Your task to perform on an android device: add a contact in the contacts app Image 0: 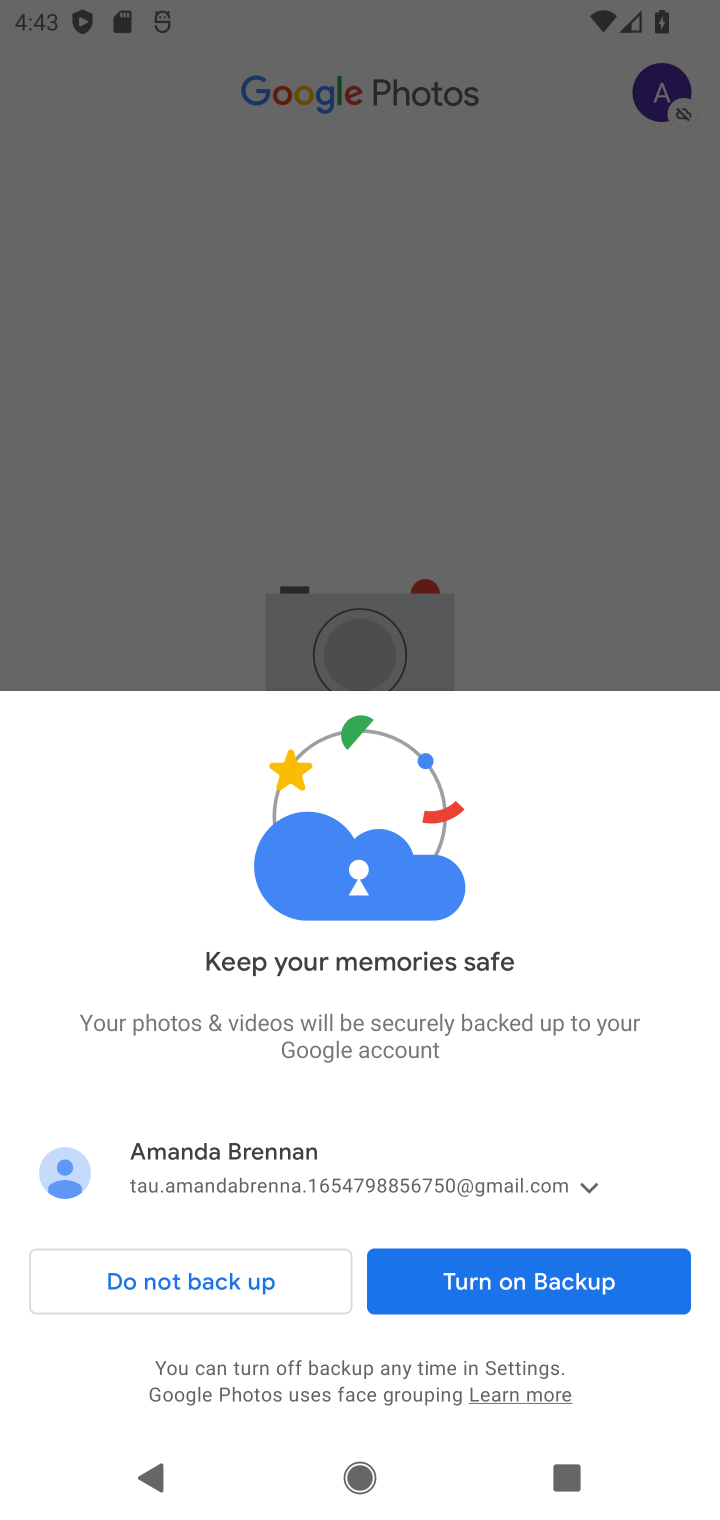
Step 0: press home button
Your task to perform on an android device: add a contact in the contacts app Image 1: 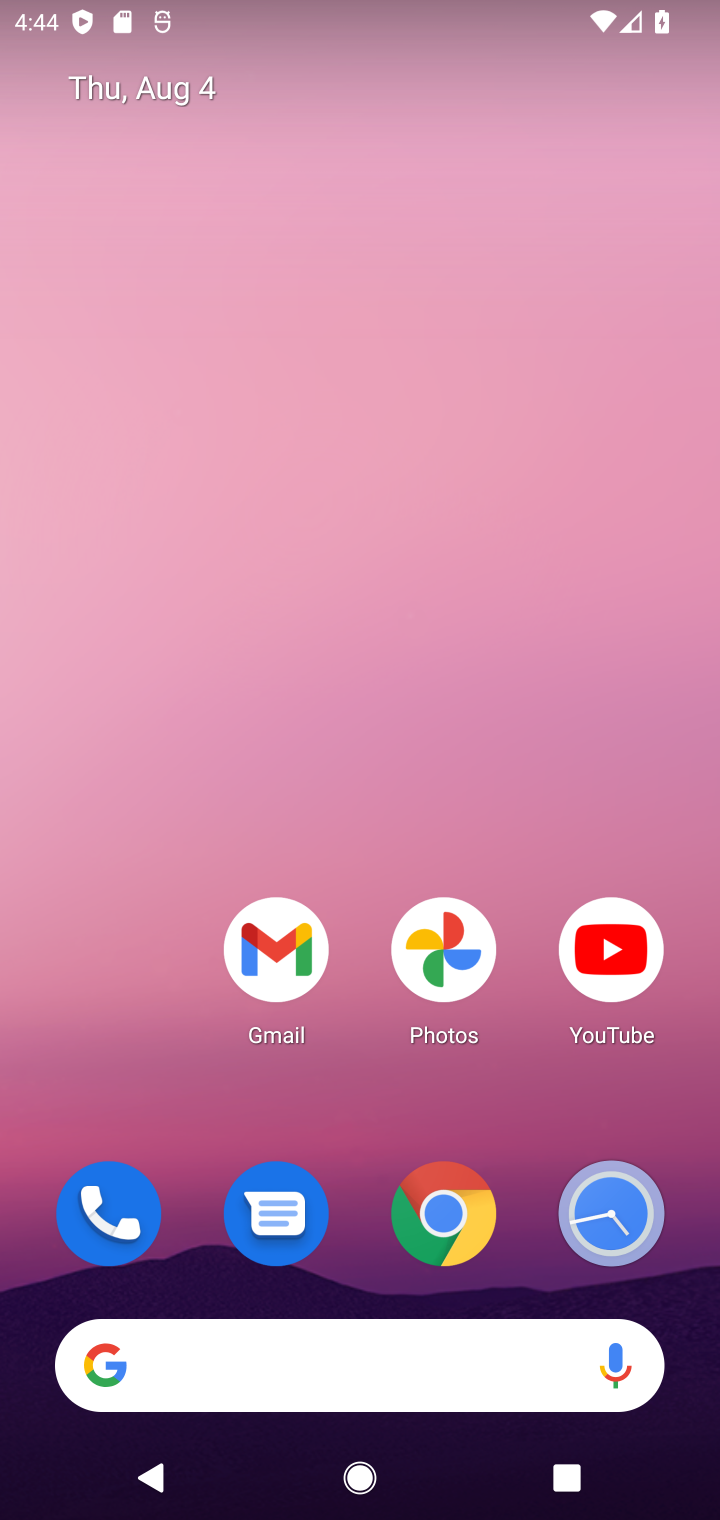
Step 1: drag from (310, 1371) to (378, 408)
Your task to perform on an android device: add a contact in the contacts app Image 2: 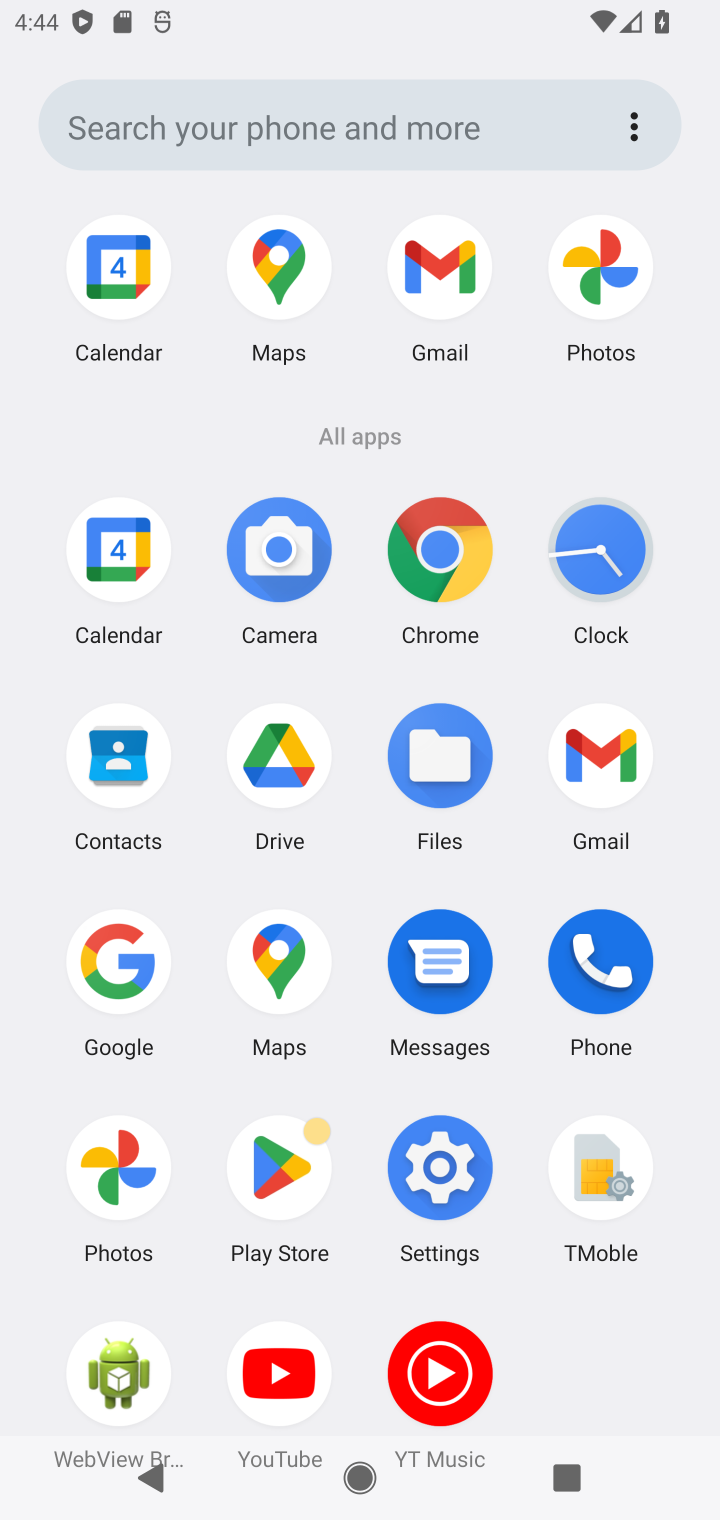
Step 2: click (118, 760)
Your task to perform on an android device: add a contact in the contacts app Image 3: 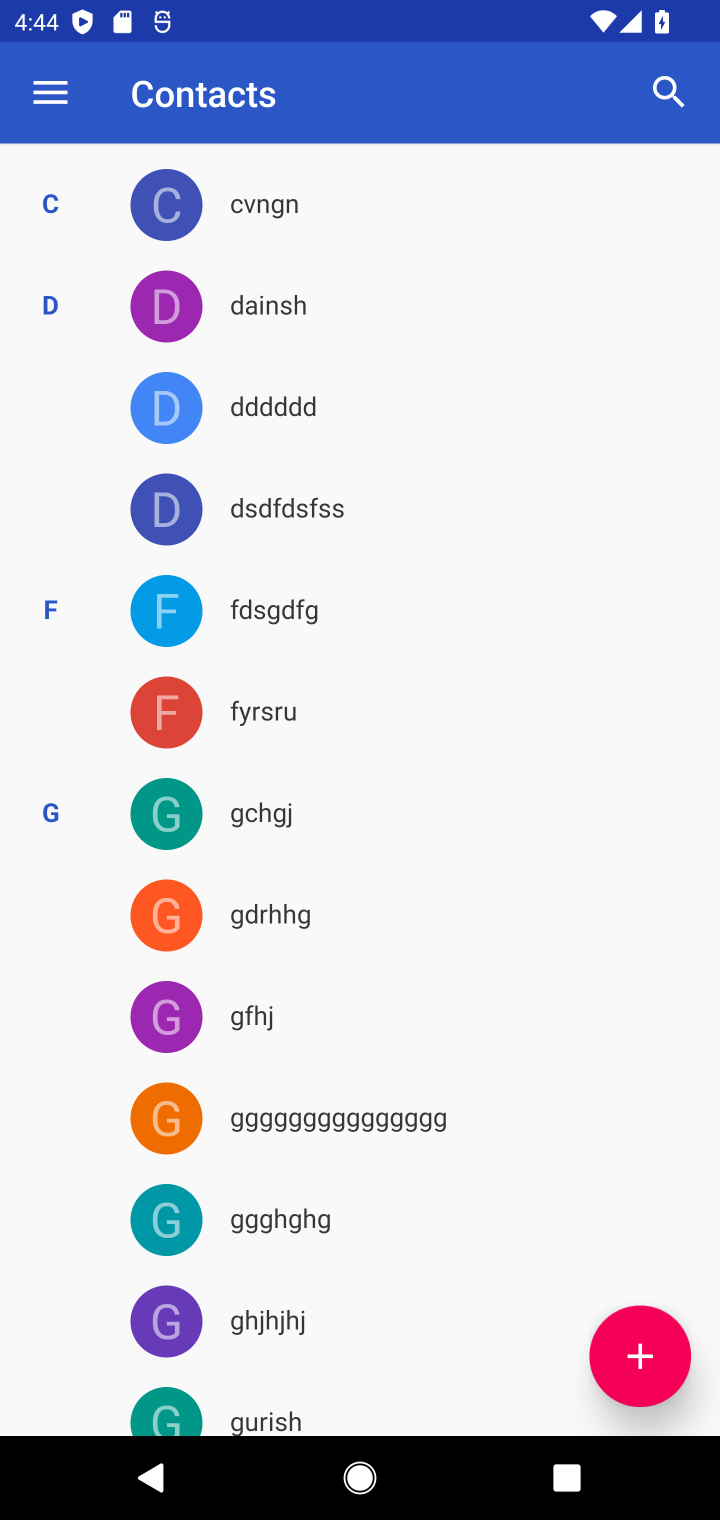
Step 3: click (641, 1355)
Your task to perform on an android device: add a contact in the contacts app Image 4: 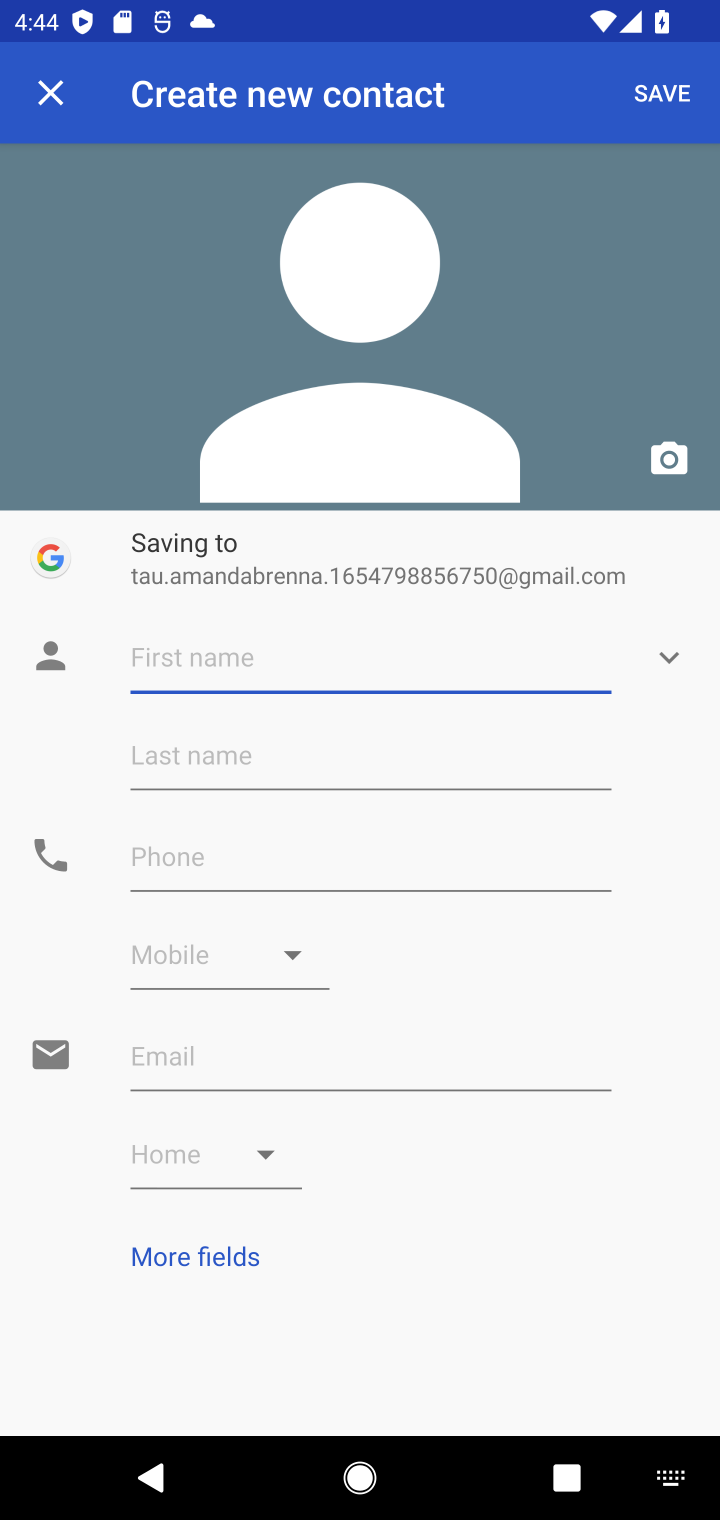
Step 4: type "Juspinder"
Your task to perform on an android device: add a contact in the contacts app Image 5: 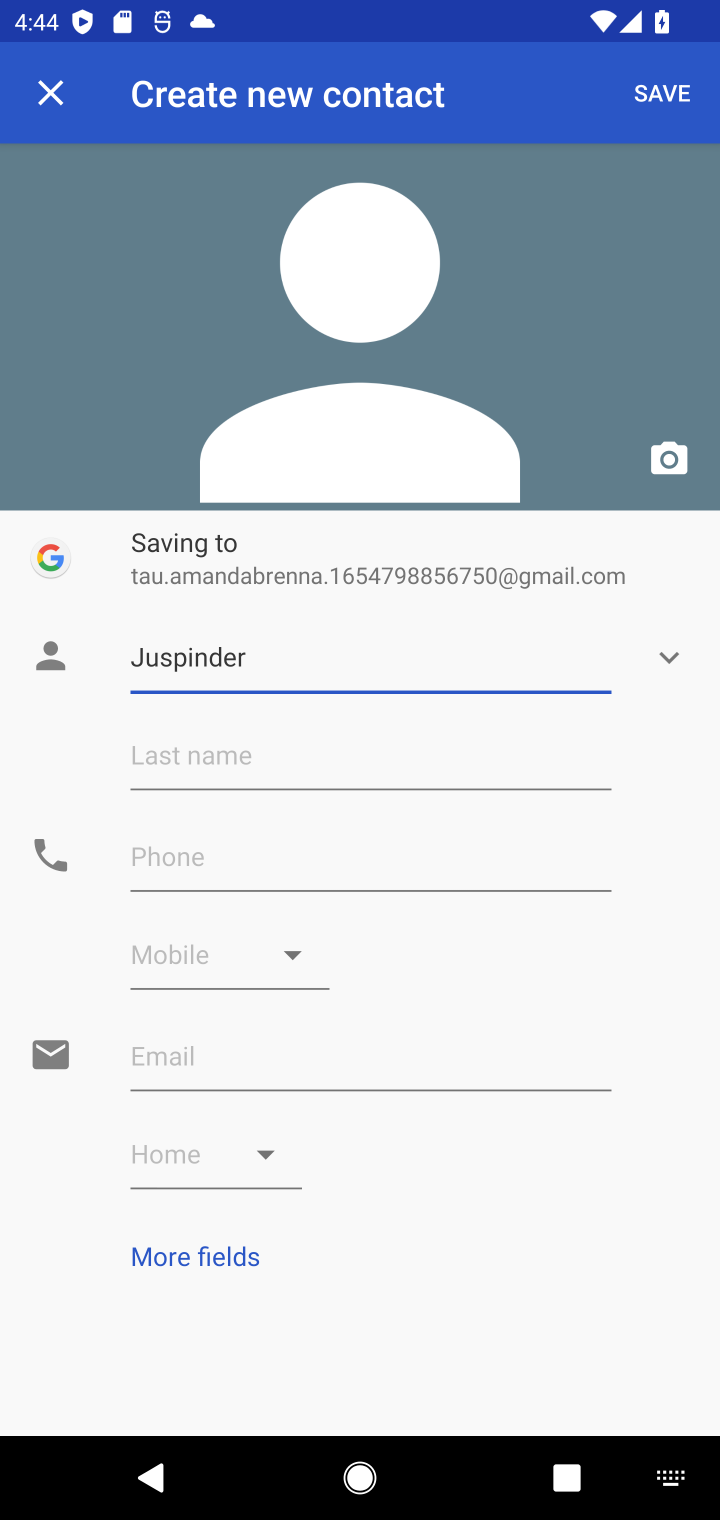
Step 5: click (476, 787)
Your task to perform on an android device: add a contact in the contacts app Image 6: 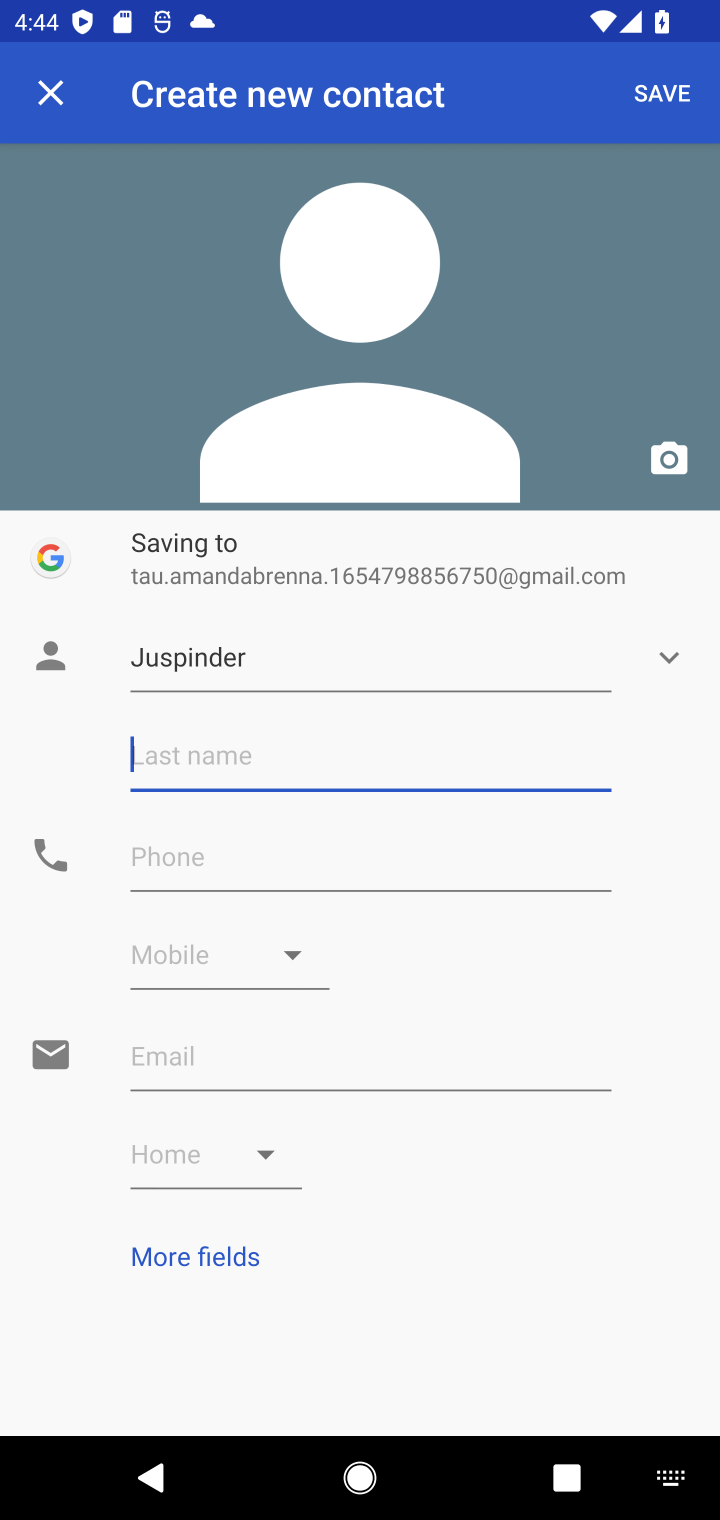
Step 6: type "Narula"
Your task to perform on an android device: add a contact in the contacts app Image 7: 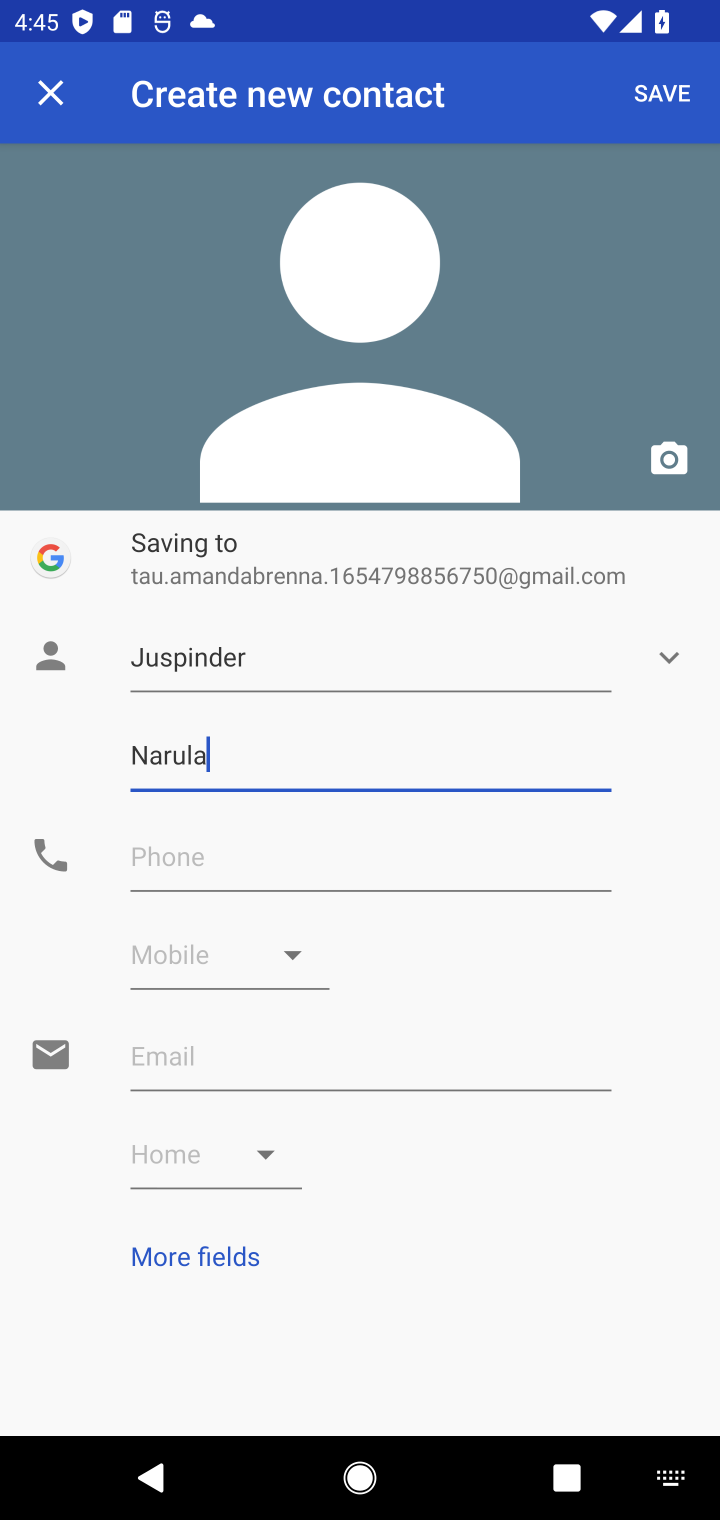
Step 7: click (308, 878)
Your task to perform on an android device: add a contact in the contacts app Image 8: 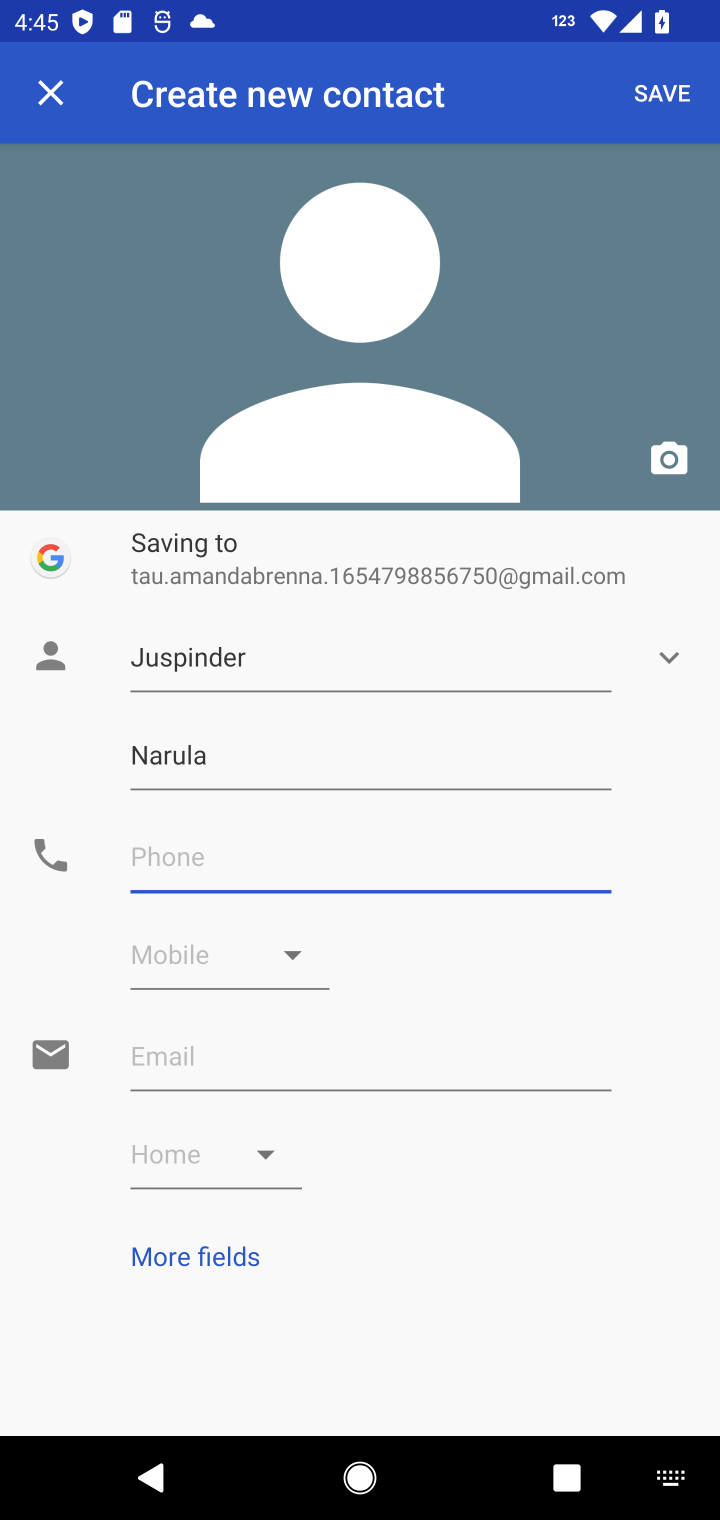
Step 8: type "0987654321"
Your task to perform on an android device: add a contact in the contacts app Image 9: 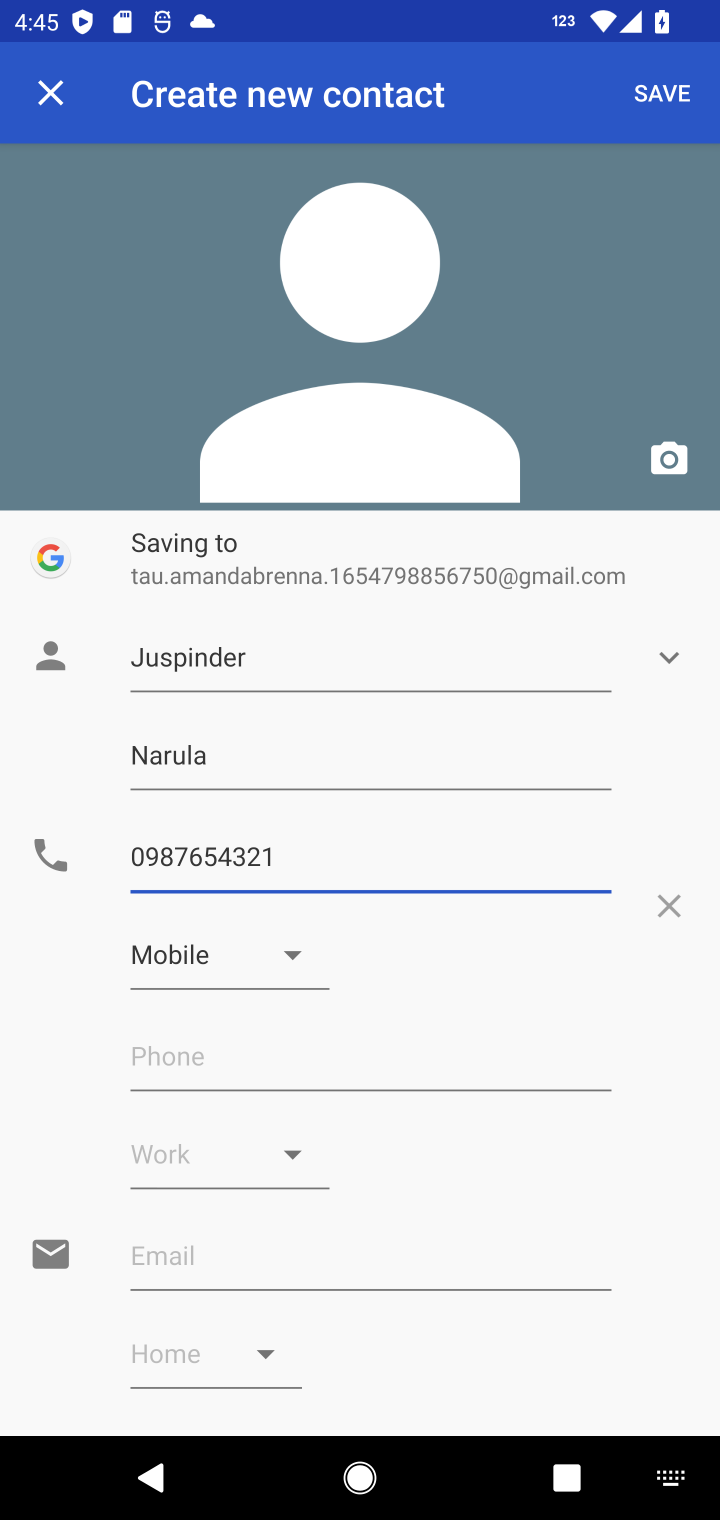
Step 9: click (677, 83)
Your task to perform on an android device: add a contact in the contacts app Image 10: 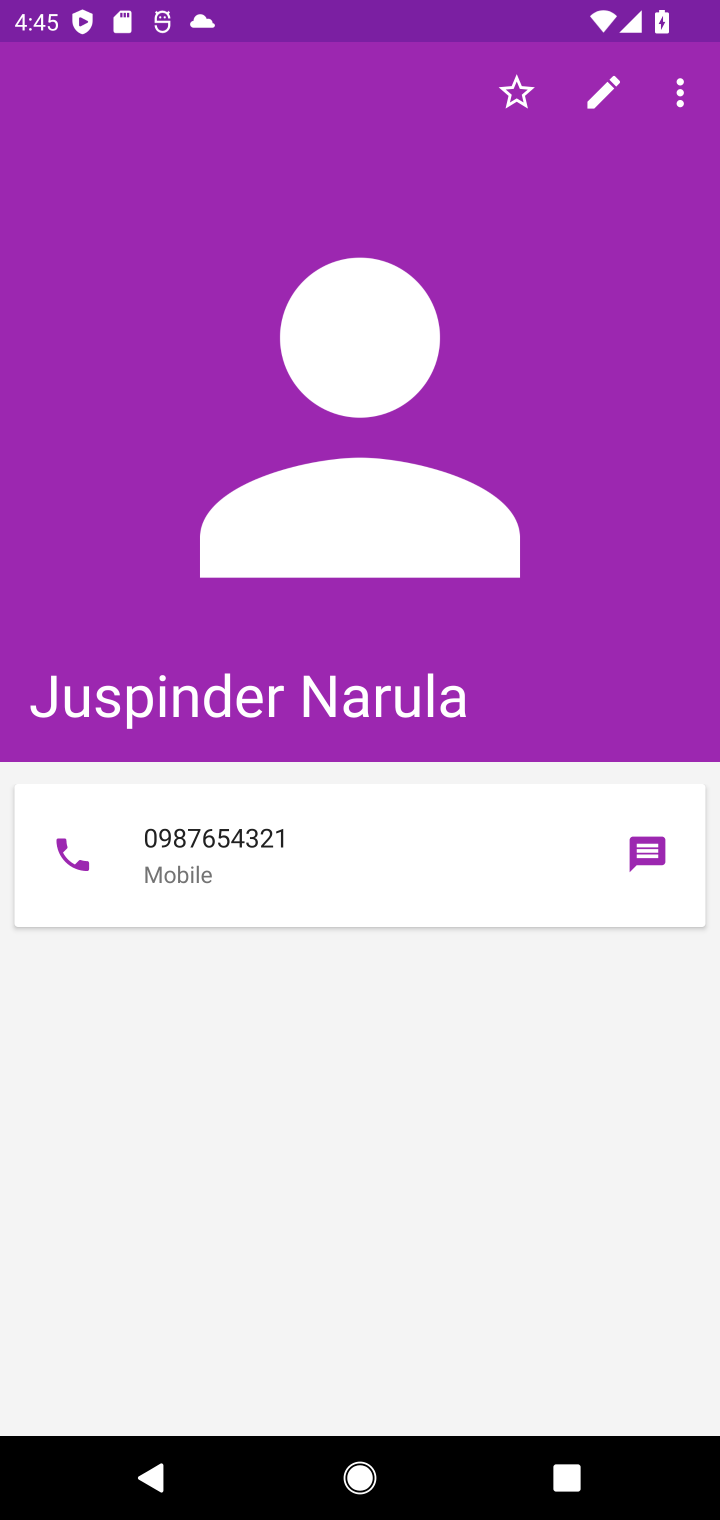
Step 10: task complete